Your task to perform on an android device: Open the web browser Image 0: 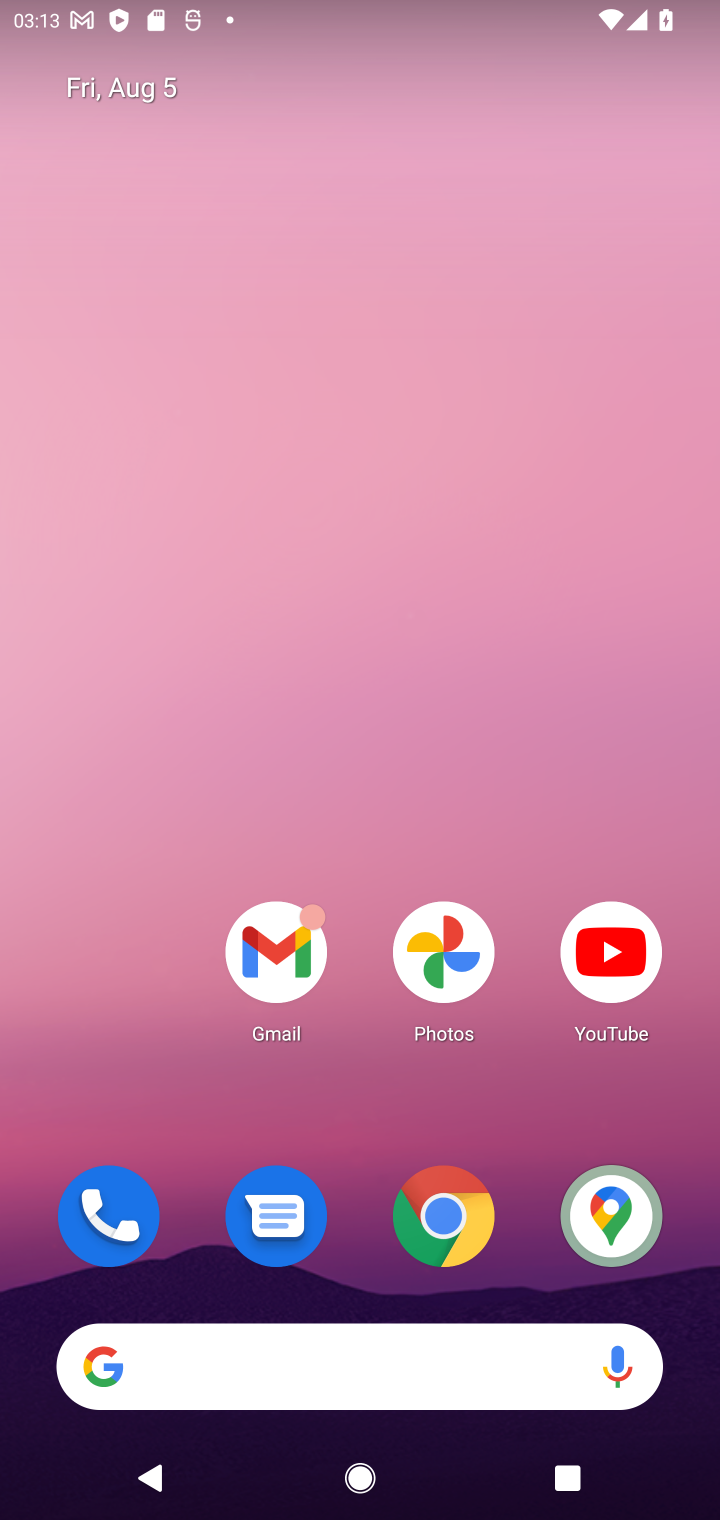
Step 0: click (460, 1204)
Your task to perform on an android device: Open the web browser Image 1: 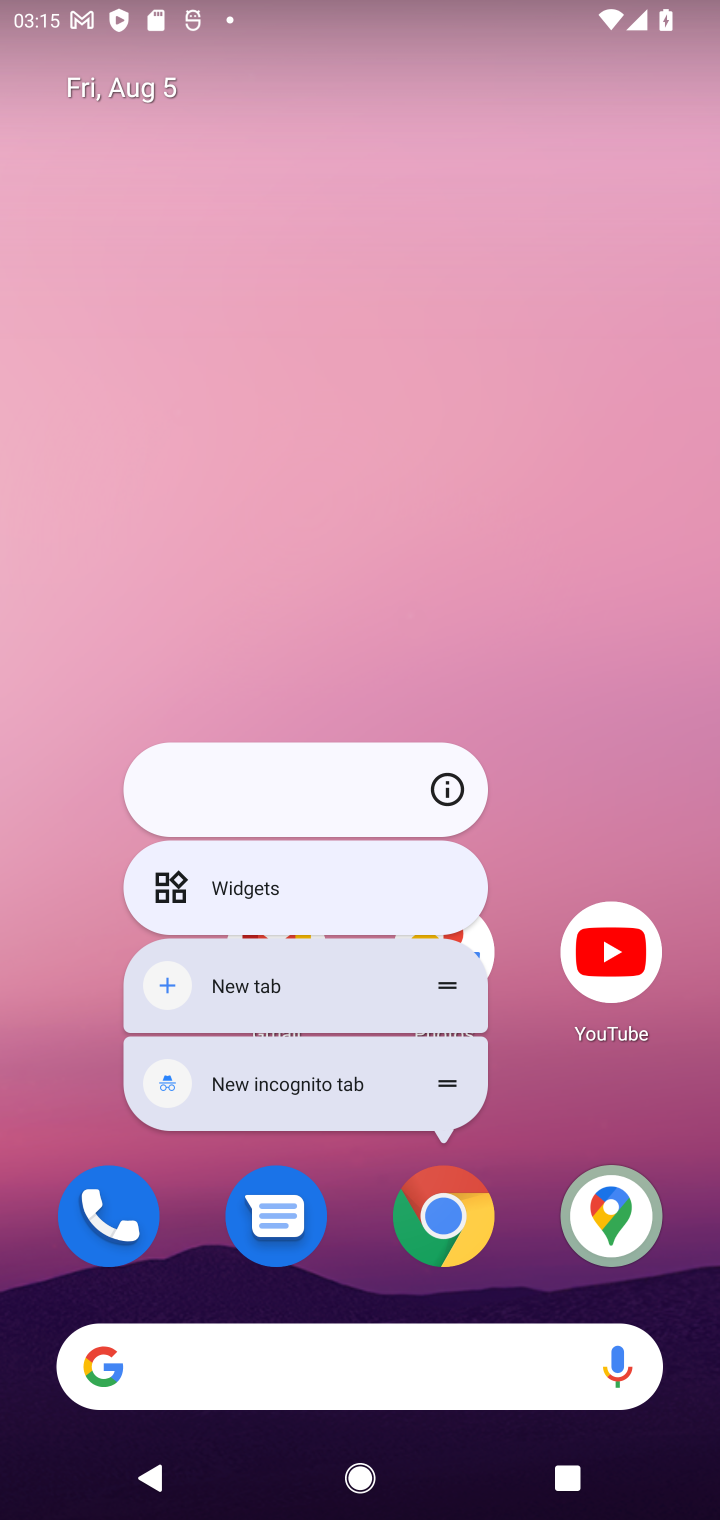
Step 1: click (457, 1225)
Your task to perform on an android device: Open the web browser Image 2: 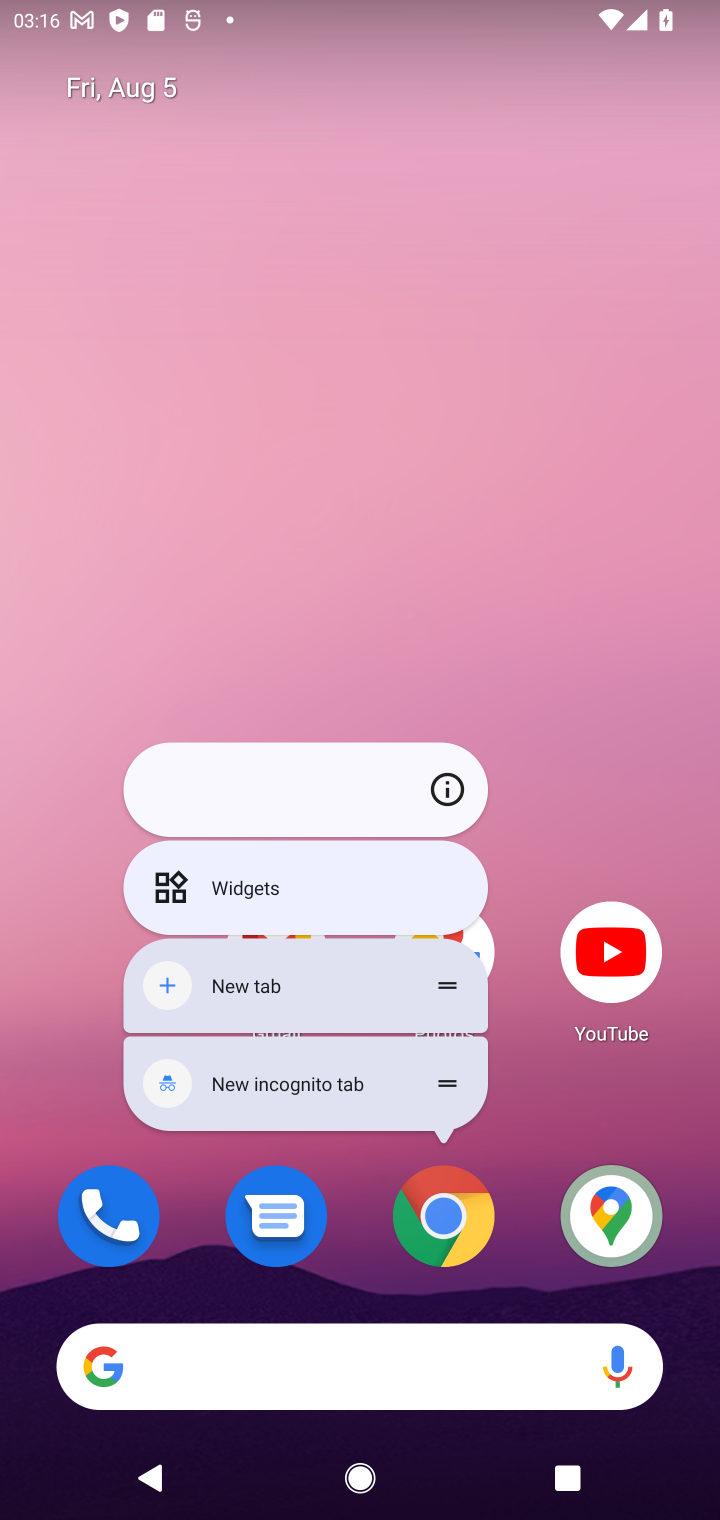
Step 2: click (447, 1182)
Your task to perform on an android device: Open the web browser Image 3: 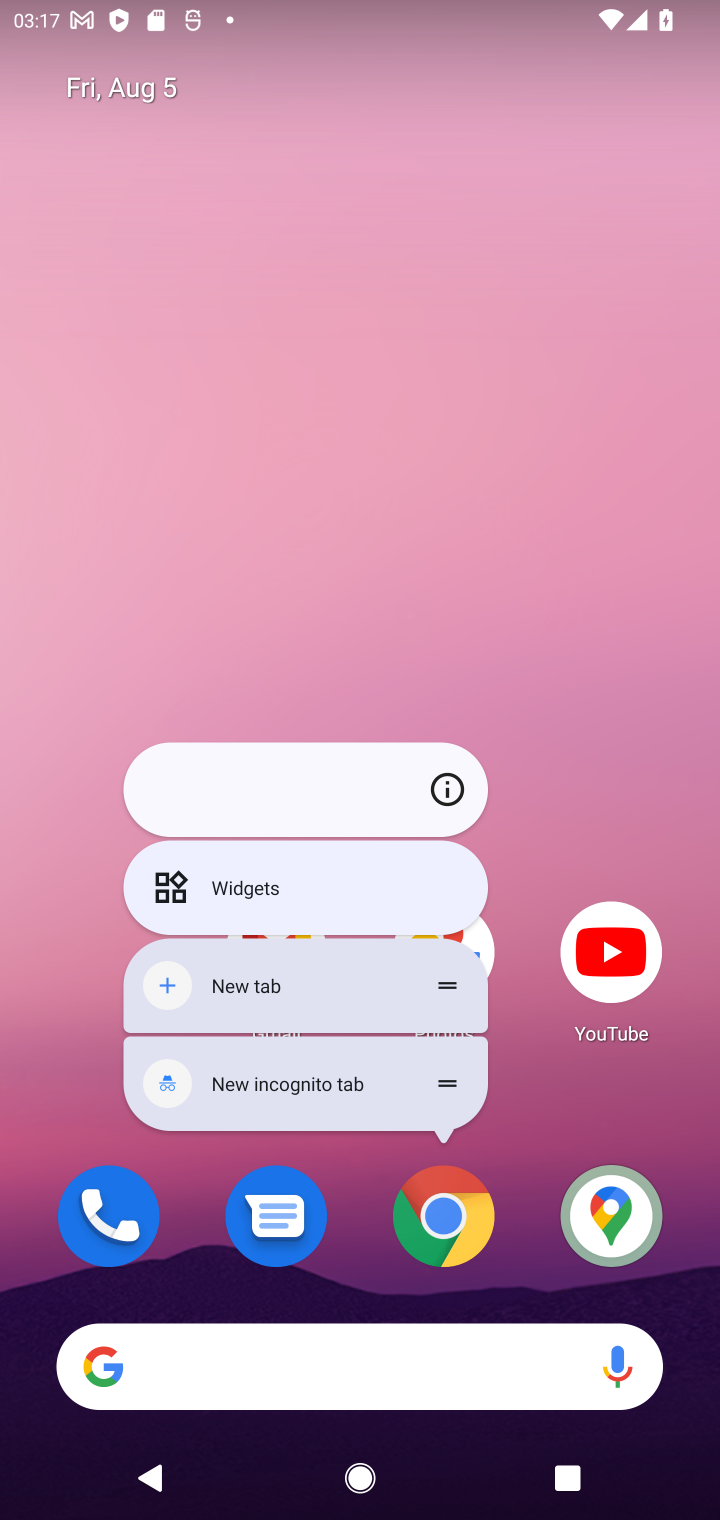
Step 3: click (415, 1234)
Your task to perform on an android device: Open the web browser Image 4: 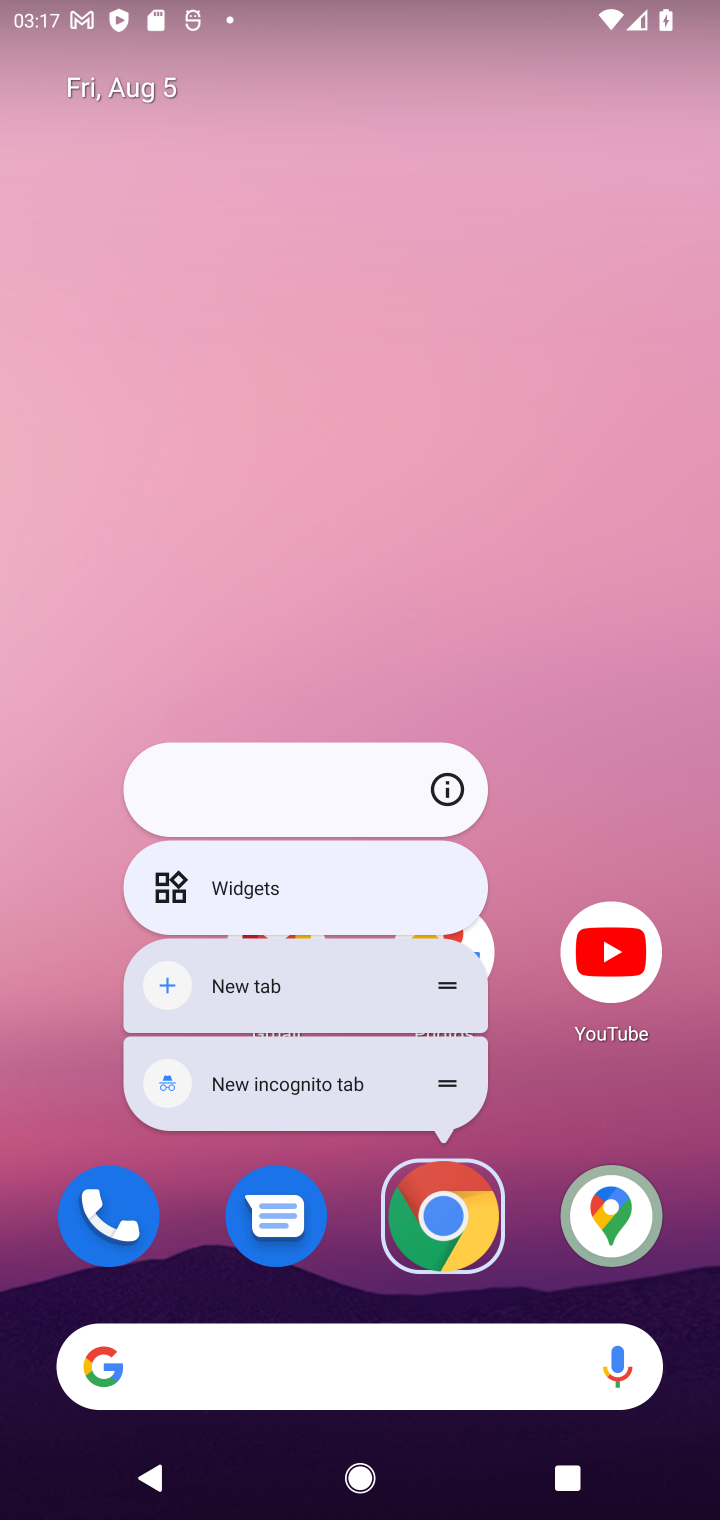
Step 4: click (439, 1254)
Your task to perform on an android device: Open the web browser Image 5: 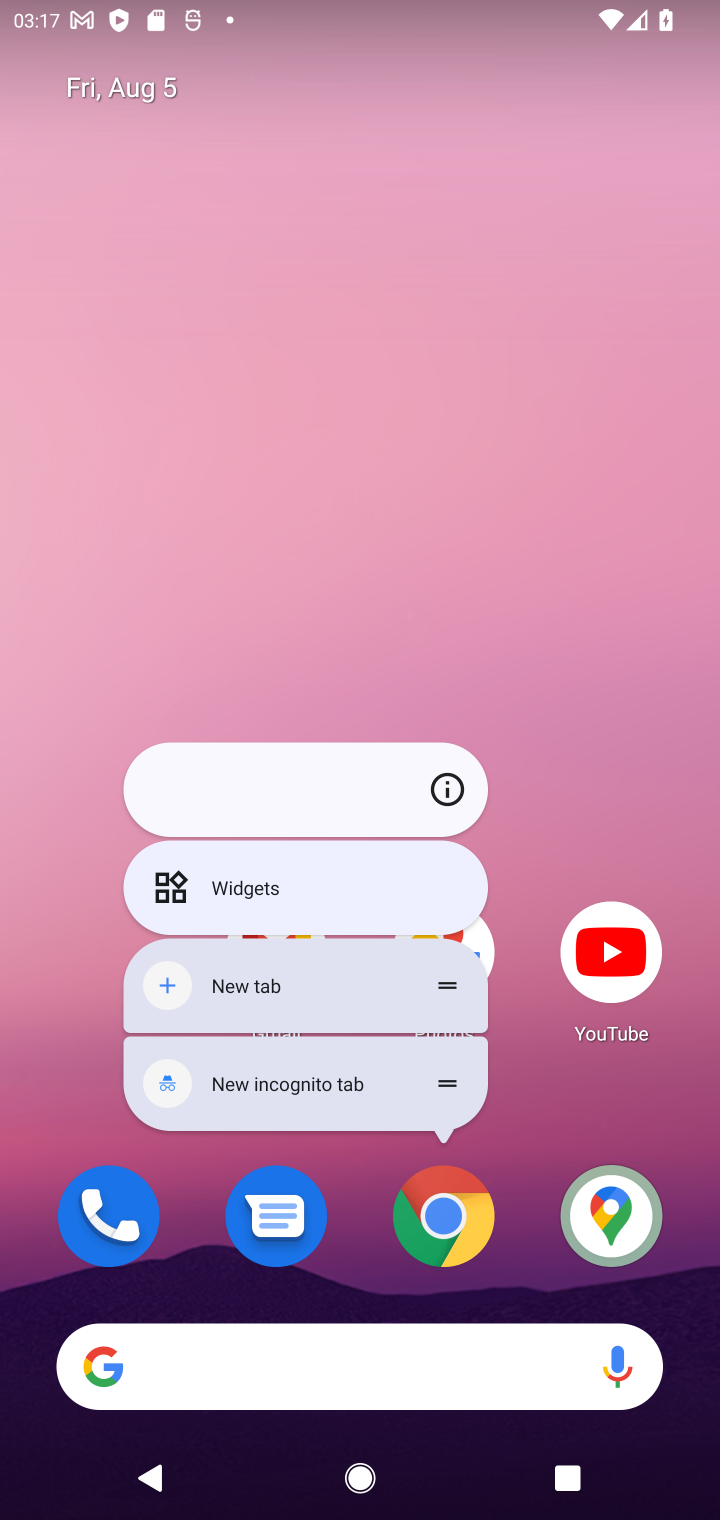
Step 5: click (439, 1249)
Your task to perform on an android device: Open the web browser Image 6: 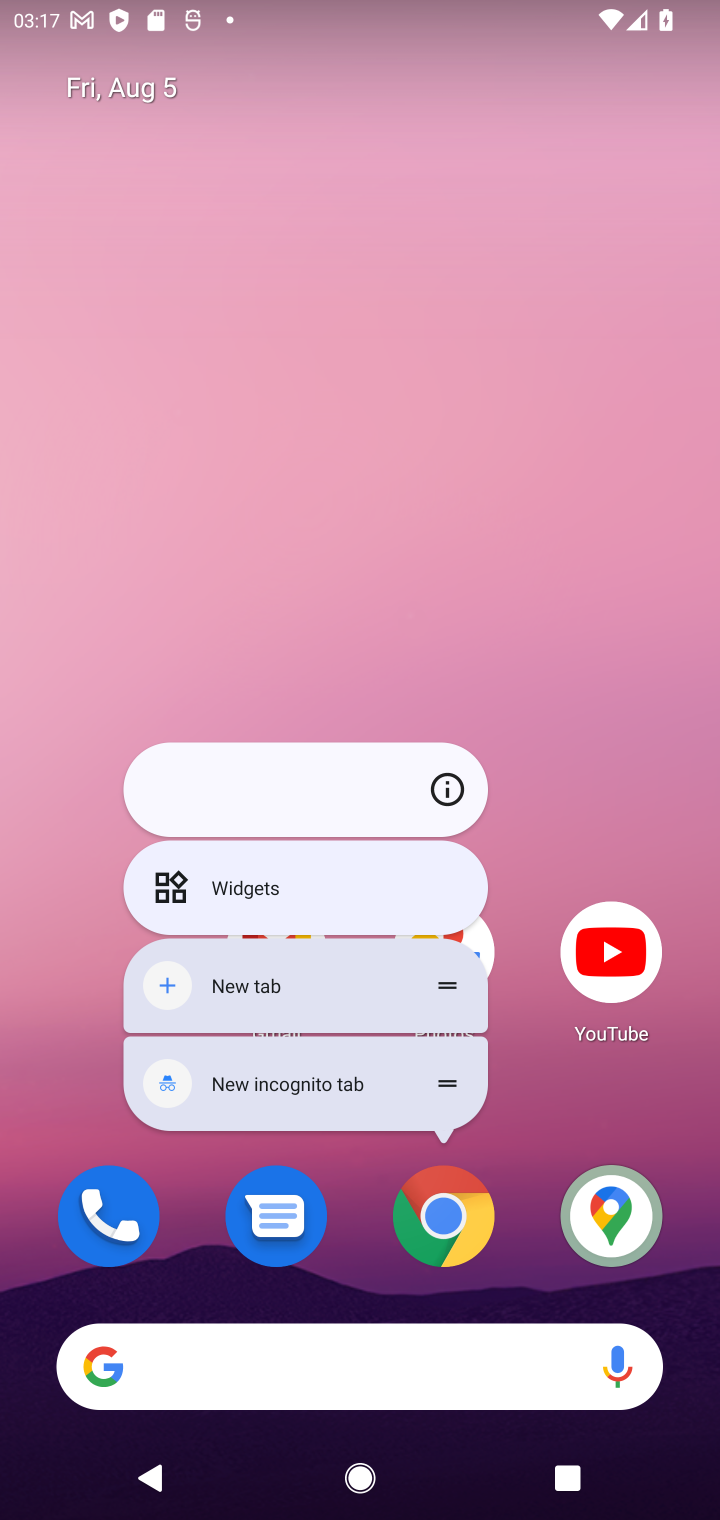
Step 6: click (439, 1249)
Your task to perform on an android device: Open the web browser Image 7: 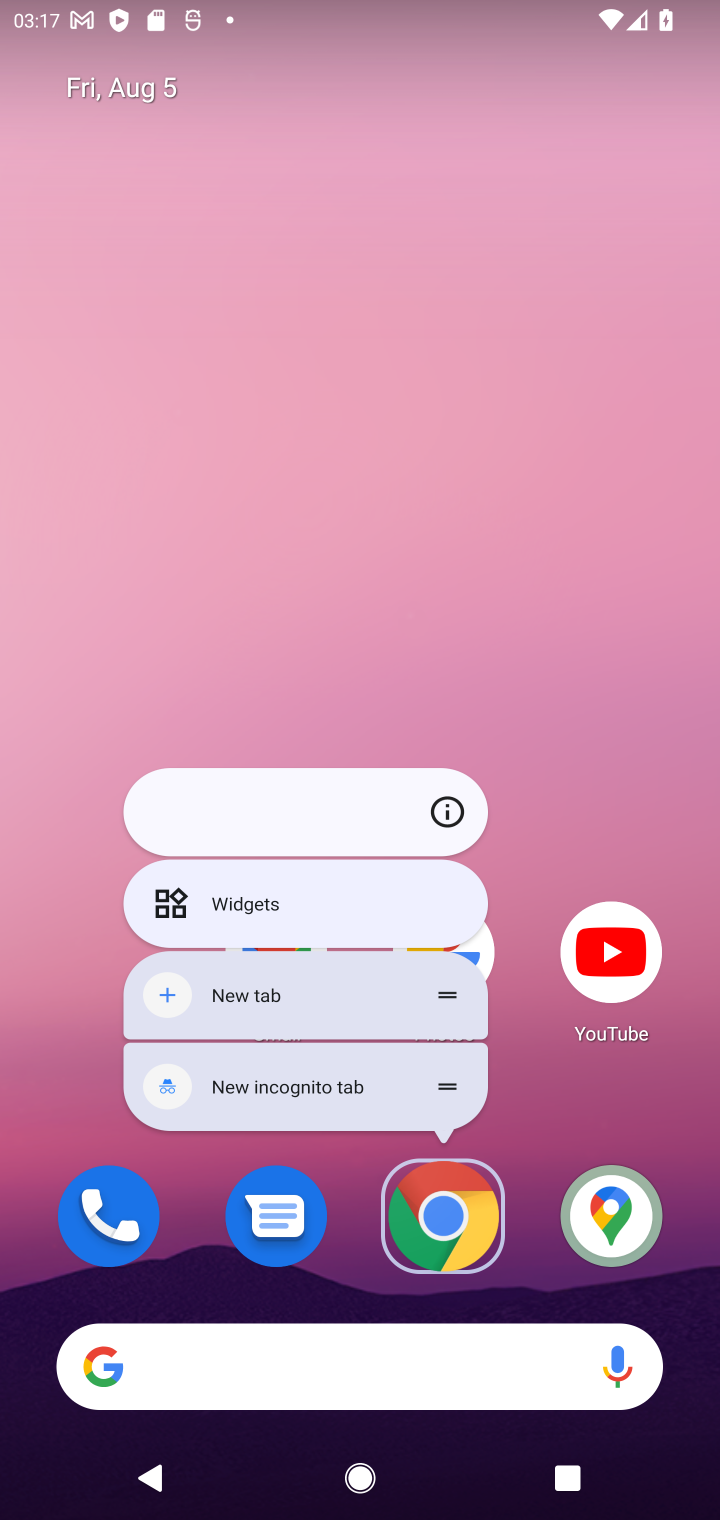
Step 7: click (414, 1229)
Your task to perform on an android device: Open the web browser Image 8: 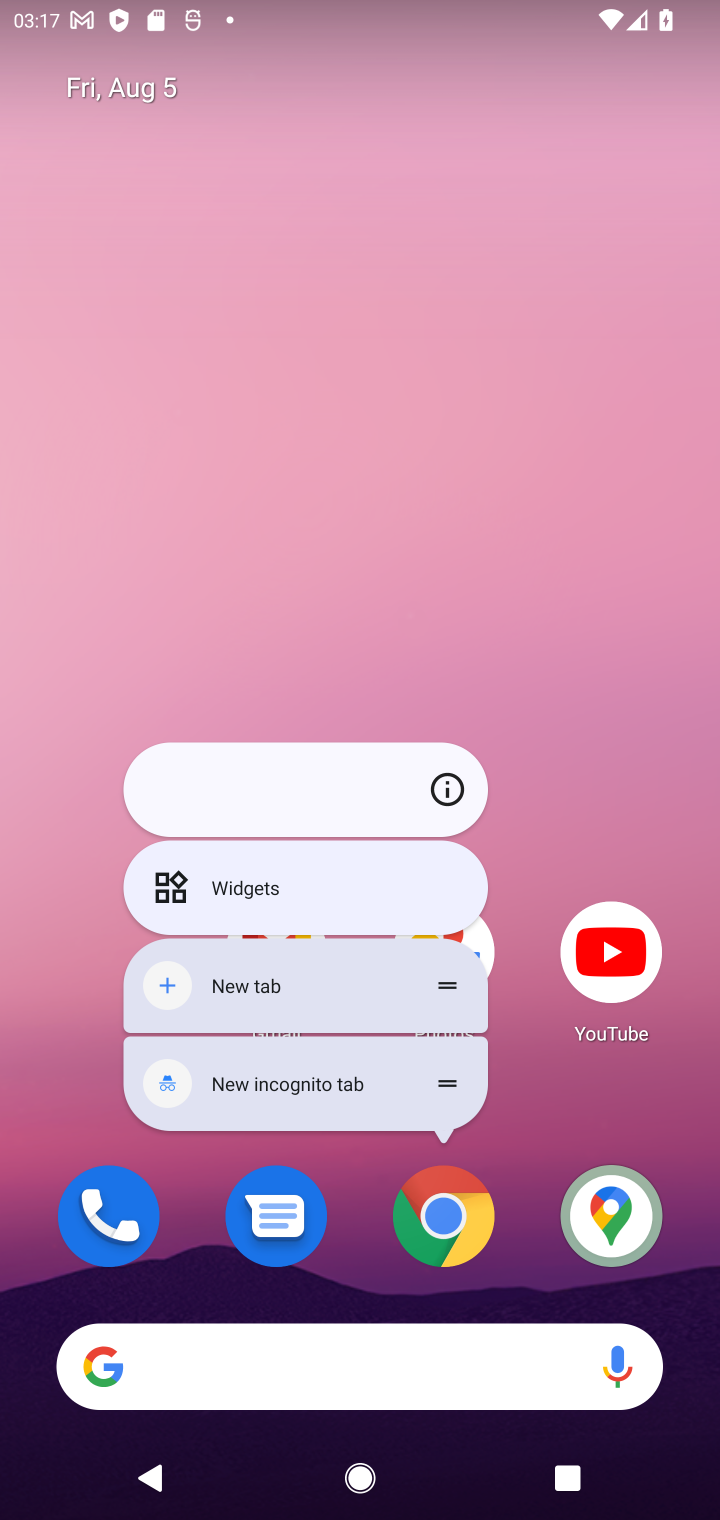
Step 8: click (401, 1232)
Your task to perform on an android device: Open the web browser Image 9: 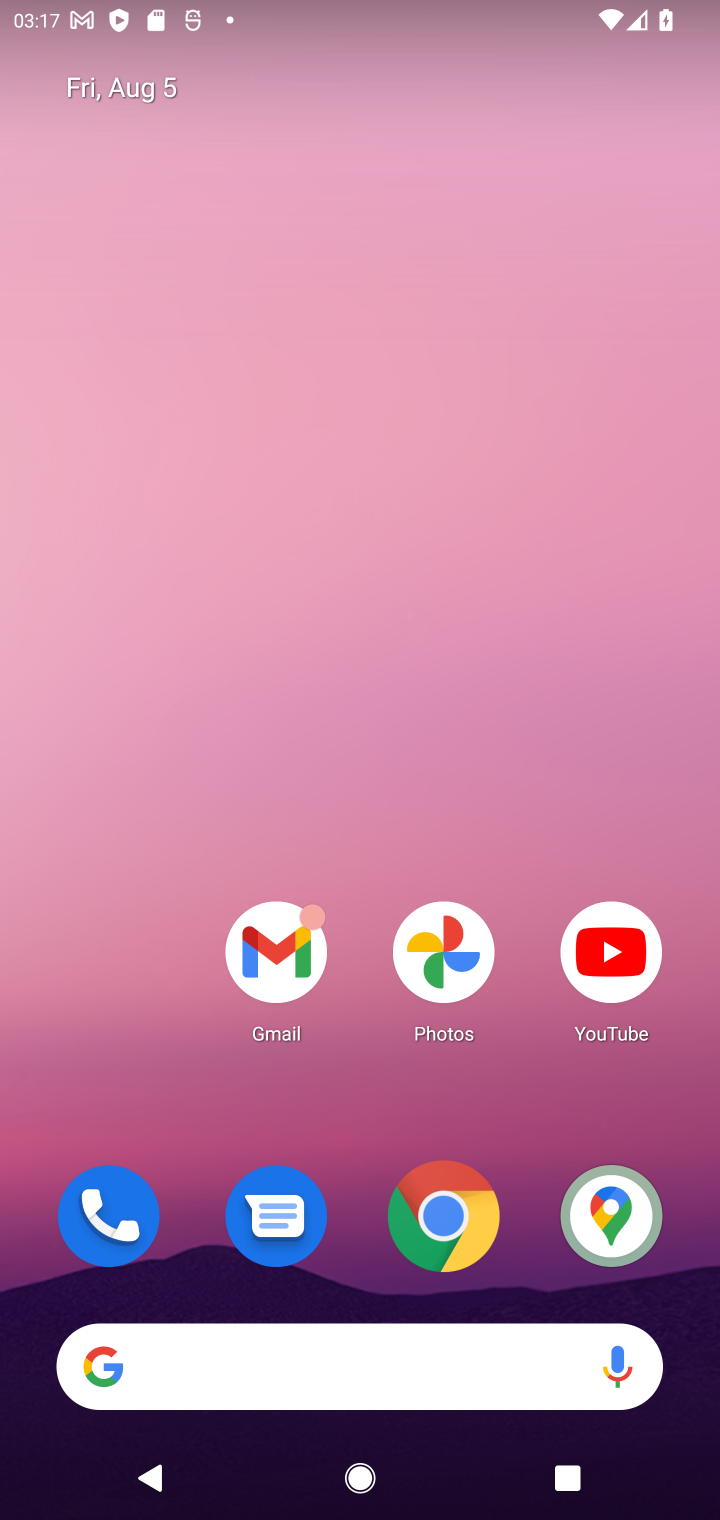
Step 9: click (427, 1193)
Your task to perform on an android device: Open the web browser Image 10: 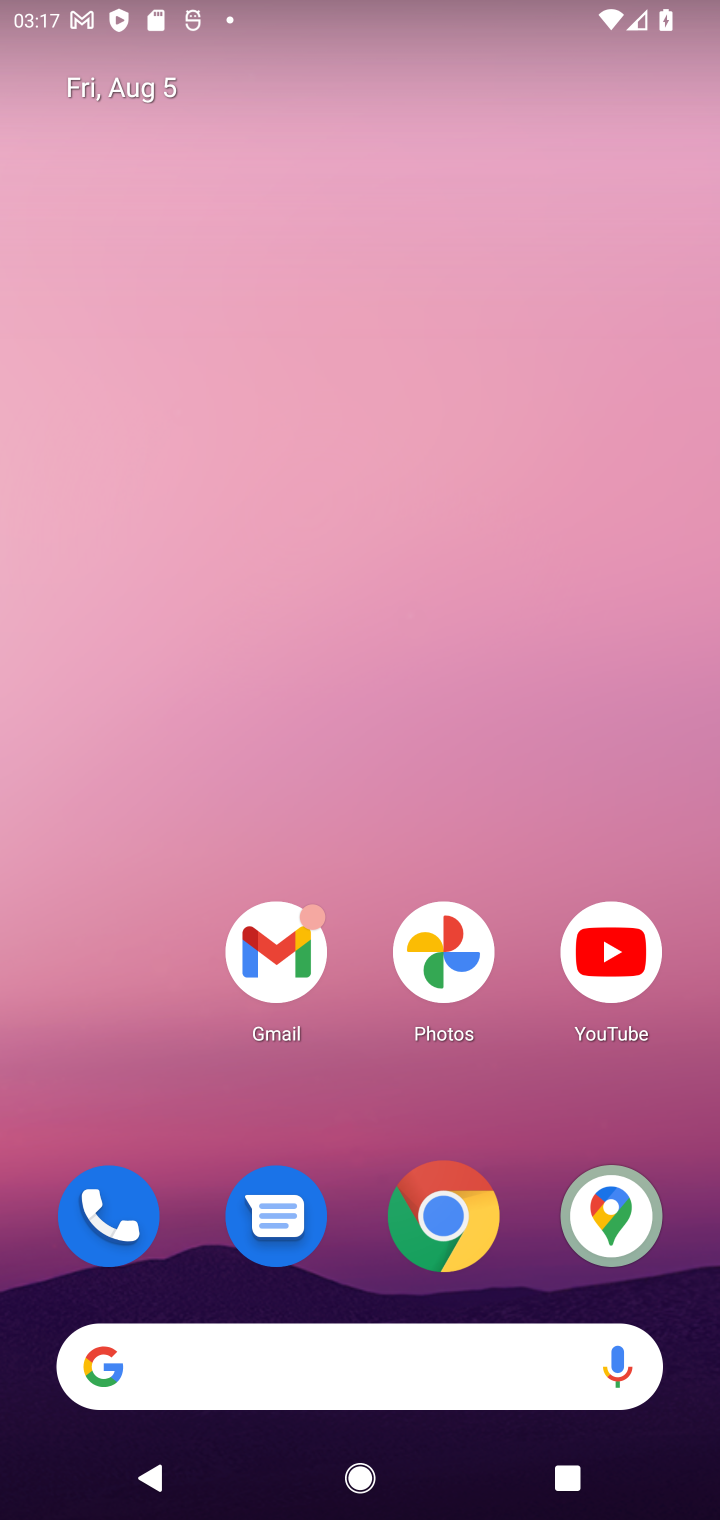
Step 10: click (427, 1218)
Your task to perform on an android device: Open the web browser Image 11: 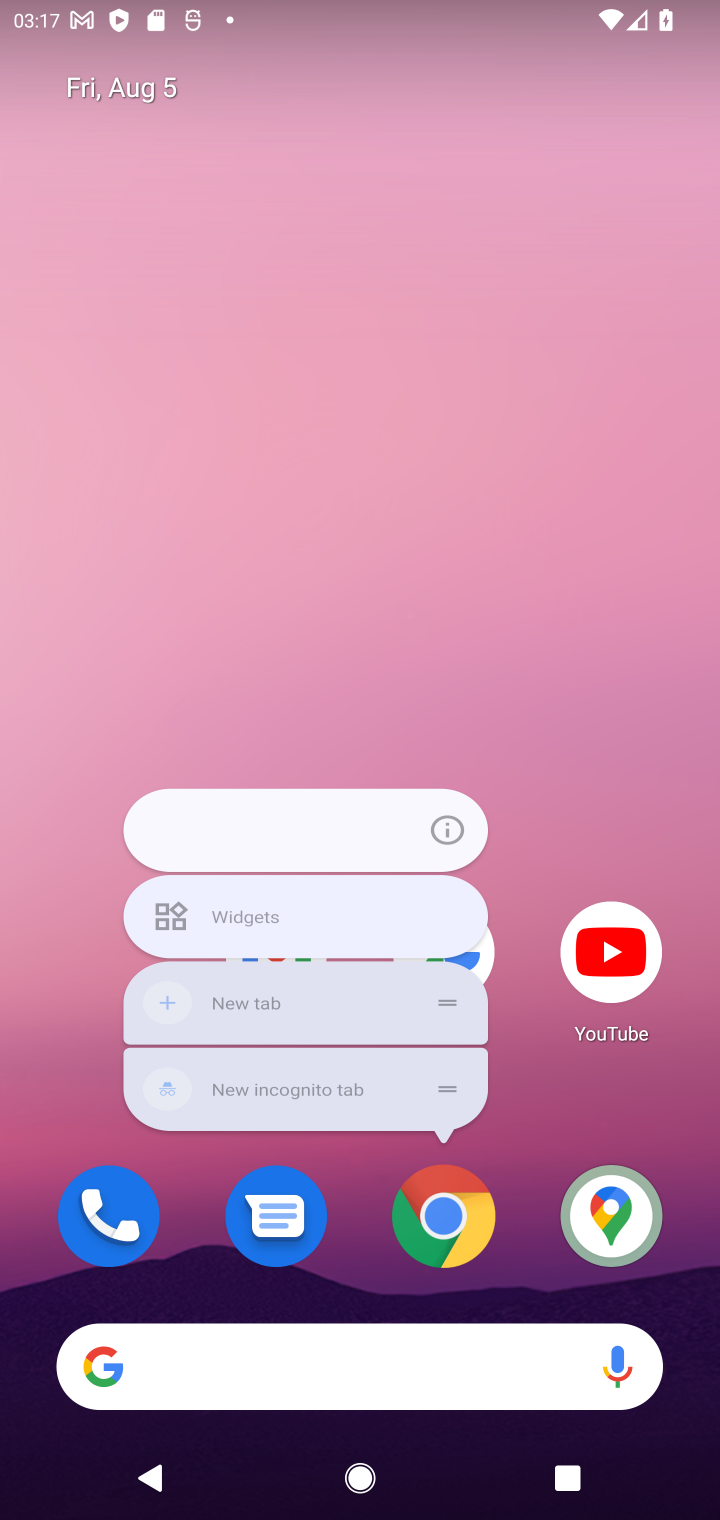
Step 11: click (427, 1218)
Your task to perform on an android device: Open the web browser Image 12: 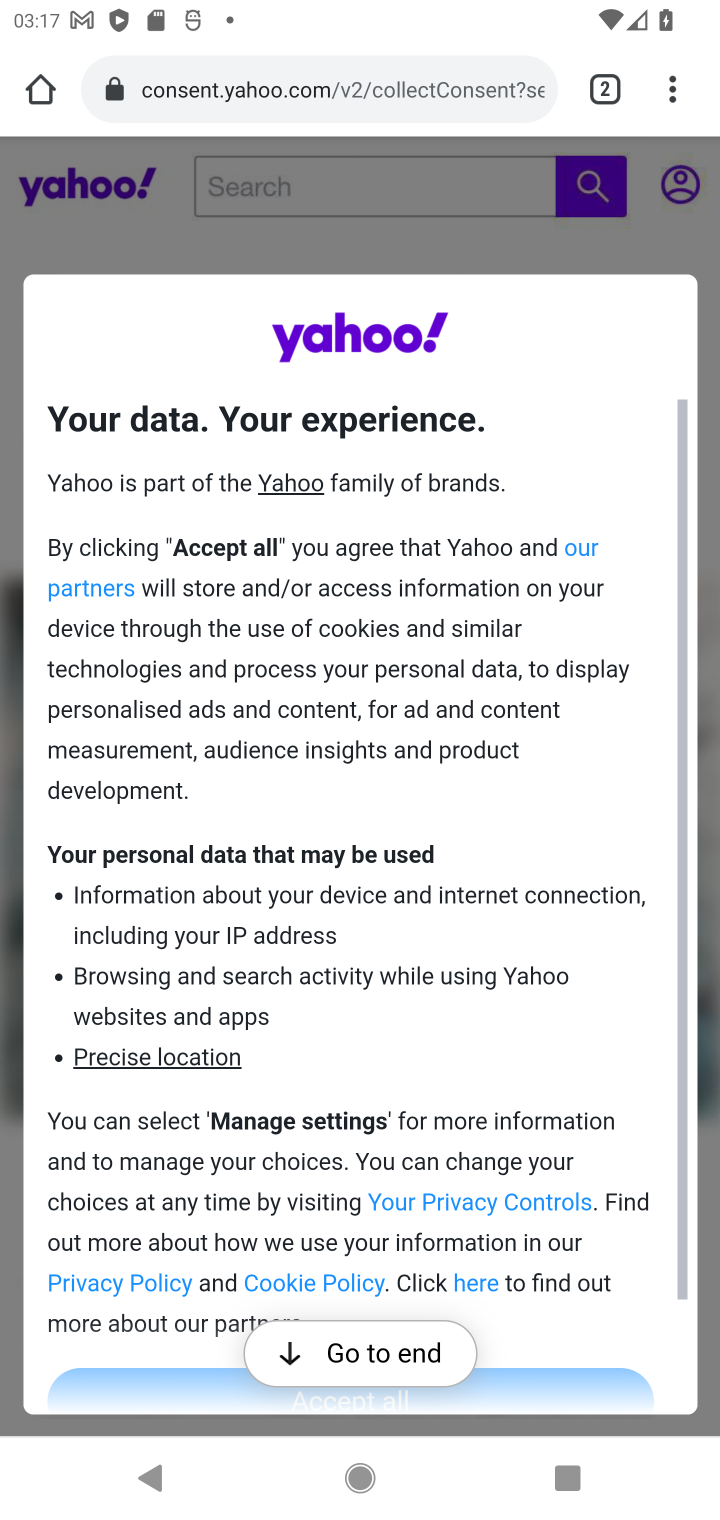
Step 12: task complete